Your task to perform on an android device: change the clock display to show seconds Image 0: 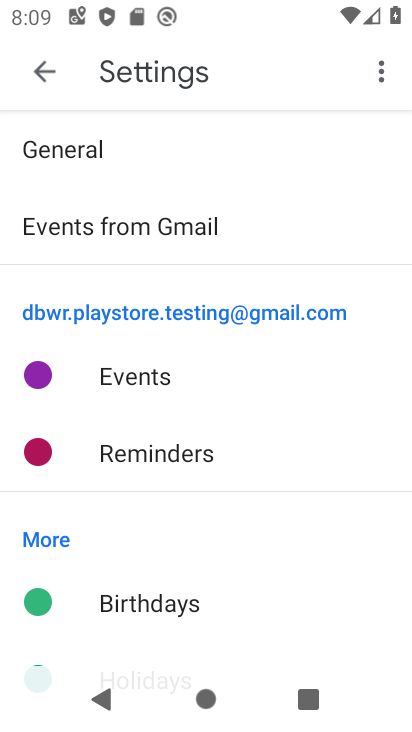
Step 0: press home button
Your task to perform on an android device: change the clock display to show seconds Image 1: 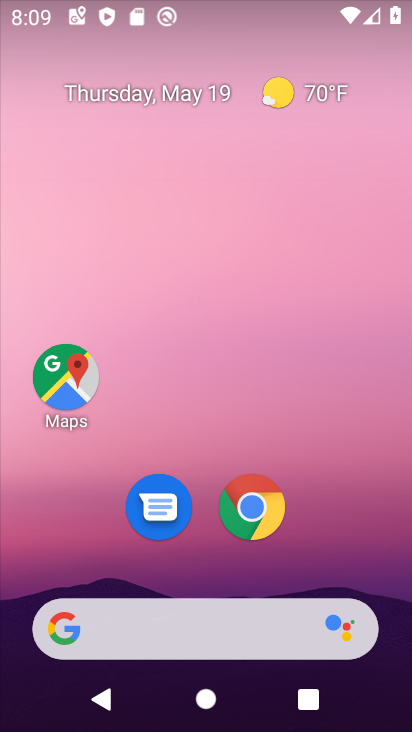
Step 1: drag from (214, 589) to (227, 157)
Your task to perform on an android device: change the clock display to show seconds Image 2: 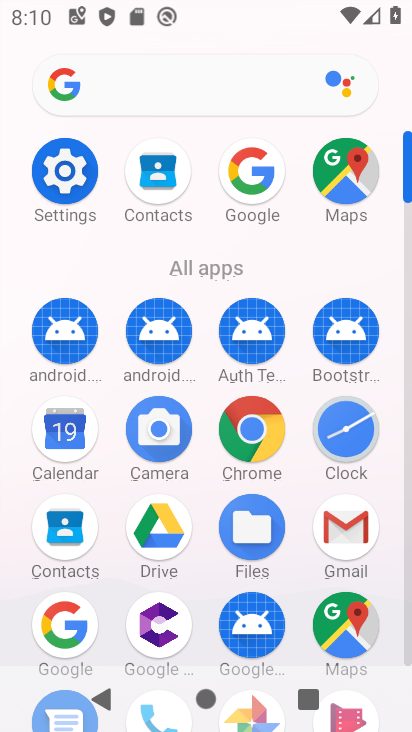
Step 2: click (358, 462)
Your task to perform on an android device: change the clock display to show seconds Image 3: 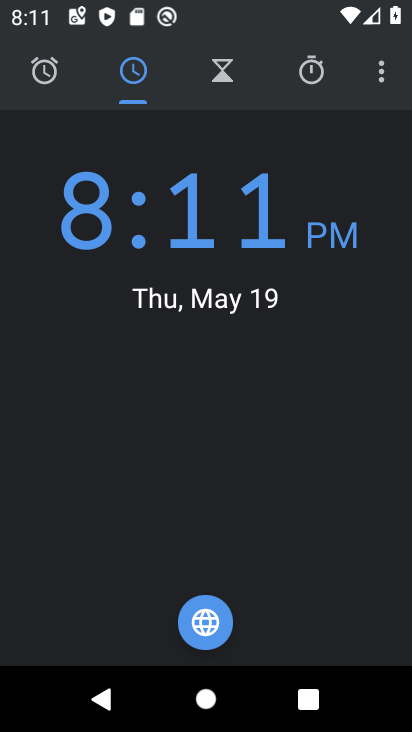
Step 3: click (378, 42)
Your task to perform on an android device: change the clock display to show seconds Image 4: 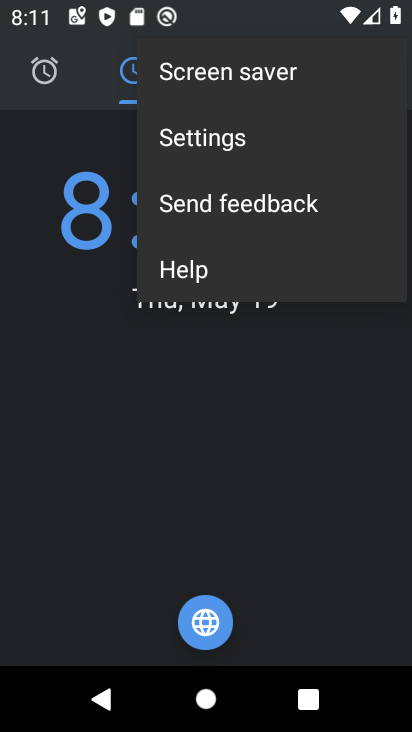
Step 4: click (183, 147)
Your task to perform on an android device: change the clock display to show seconds Image 5: 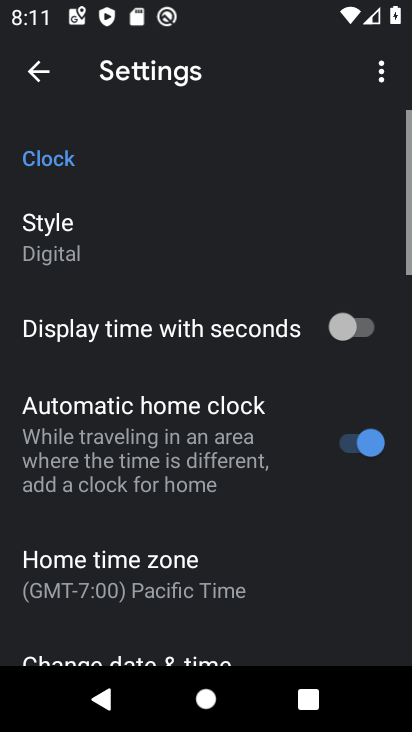
Step 5: drag from (162, 597) to (230, 549)
Your task to perform on an android device: change the clock display to show seconds Image 6: 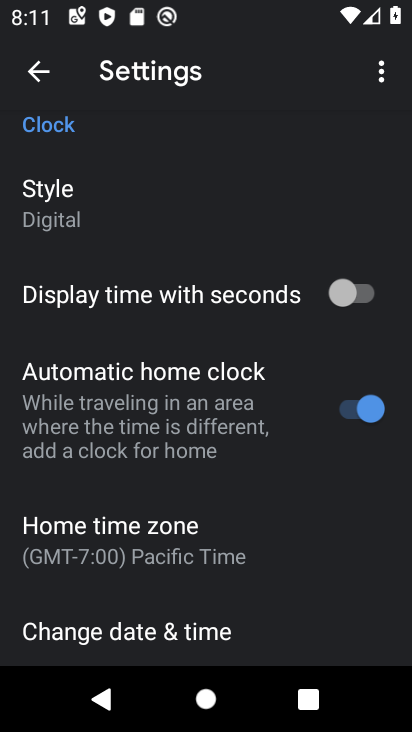
Step 6: click (358, 285)
Your task to perform on an android device: change the clock display to show seconds Image 7: 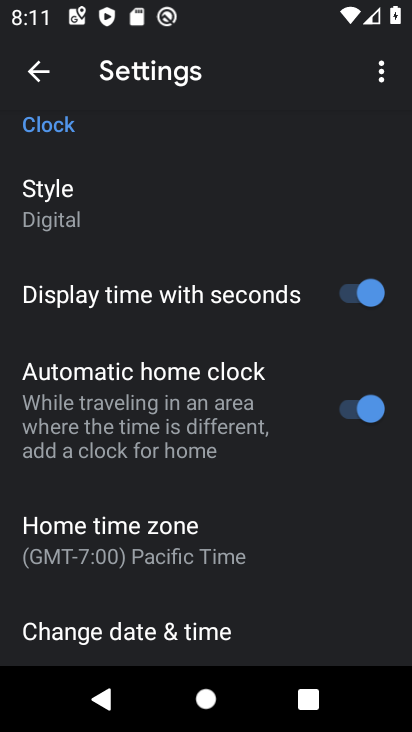
Step 7: task complete